Your task to perform on an android device: clear all cookies in the chrome app Image 0: 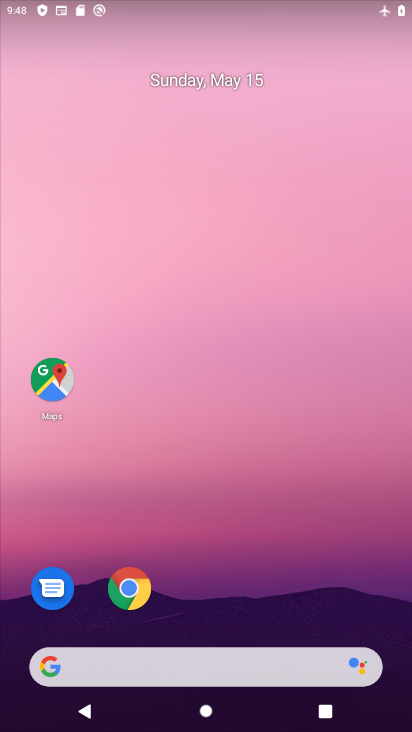
Step 0: click (125, 600)
Your task to perform on an android device: clear all cookies in the chrome app Image 1: 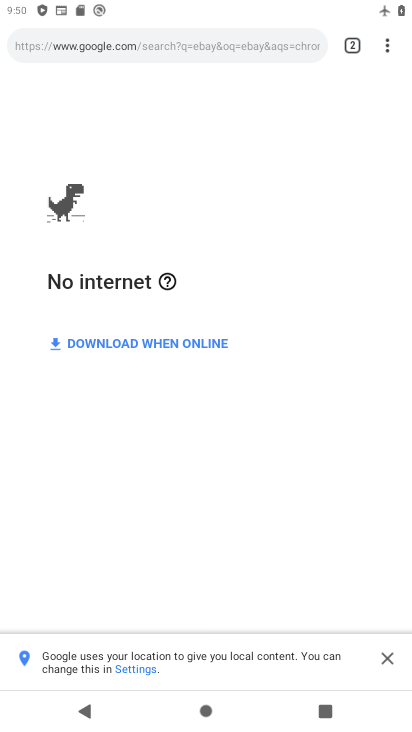
Step 1: task complete